Your task to perform on an android device: toggle priority inbox in the gmail app Image 0: 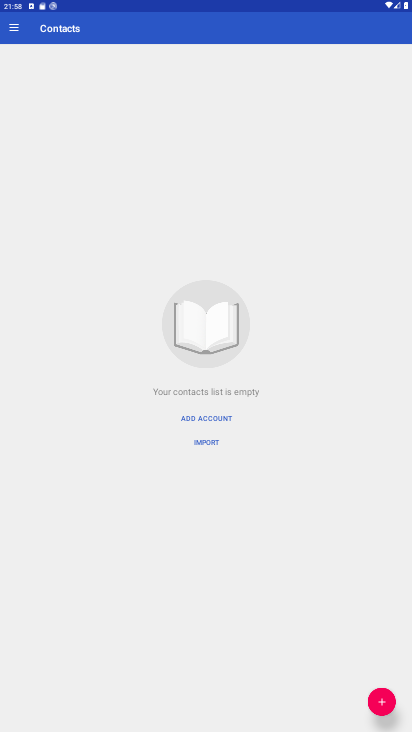
Step 0: press home button
Your task to perform on an android device: toggle priority inbox in the gmail app Image 1: 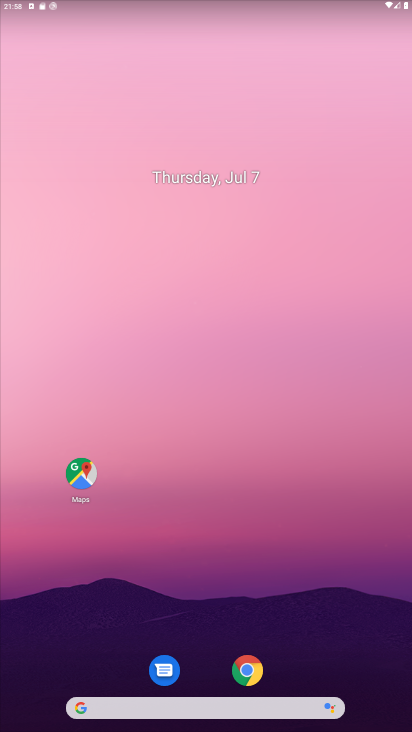
Step 1: task complete